Your task to perform on an android device: Open calendar and show me the fourth week of next month Image 0: 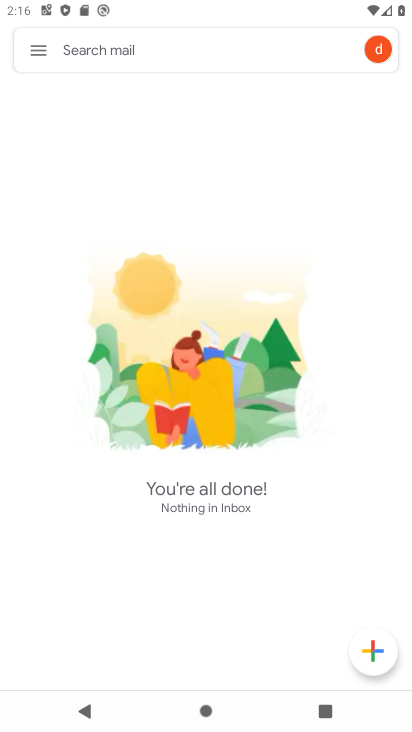
Step 0: press back button
Your task to perform on an android device: Open calendar and show me the fourth week of next month Image 1: 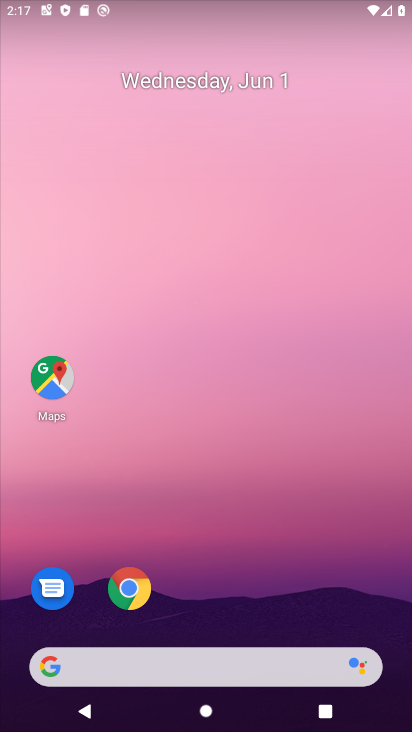
Step 1: drag from (197, 640) to (241, 99)
Your task to perform on an android device: Open calendar and show me the fourth week of next month Image 2: 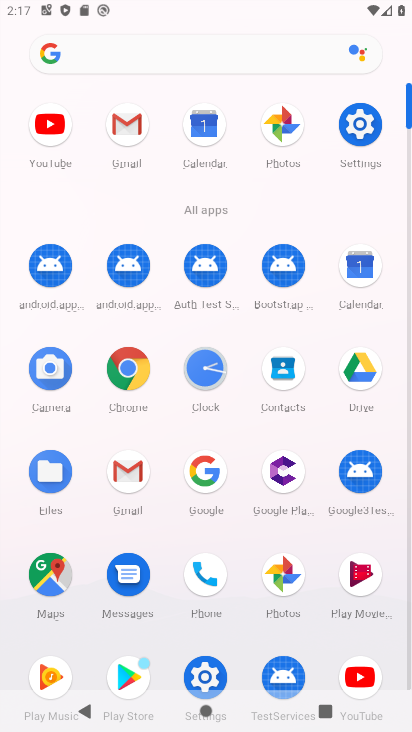
Step 2: click (345, 282)
Your task to perform on an android device: Open calendar and show me the fourth week of next month Image 3: 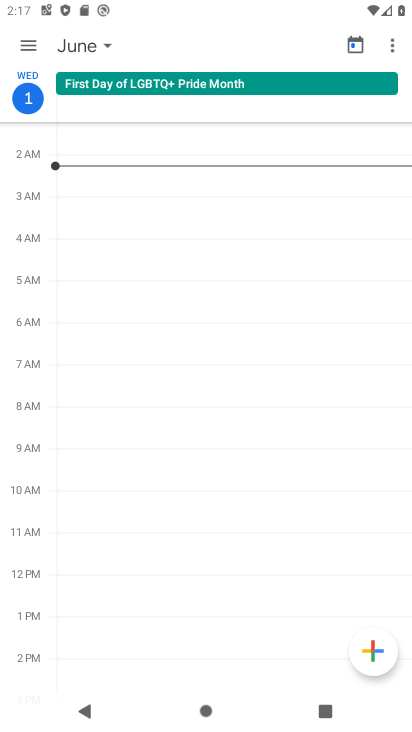
Step 3: click (27, 37)
Your task to perform on an android device: Open calendar and show me the fourth week of next month Image 4: 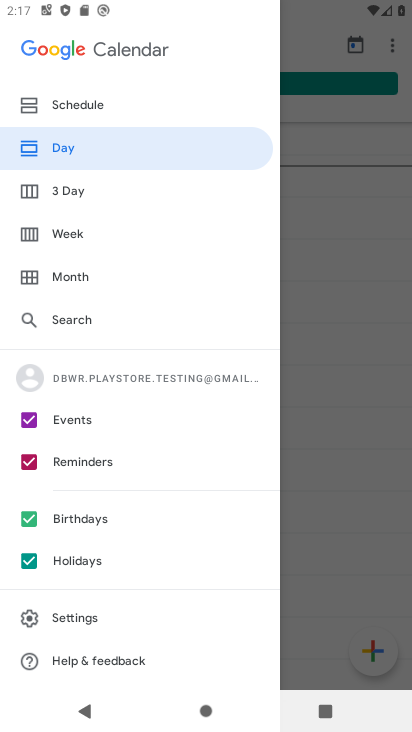
Step 4: click (87, 98)
Your task to perform on an android device: Open calendar and show me the fourth week of next month Image 5: 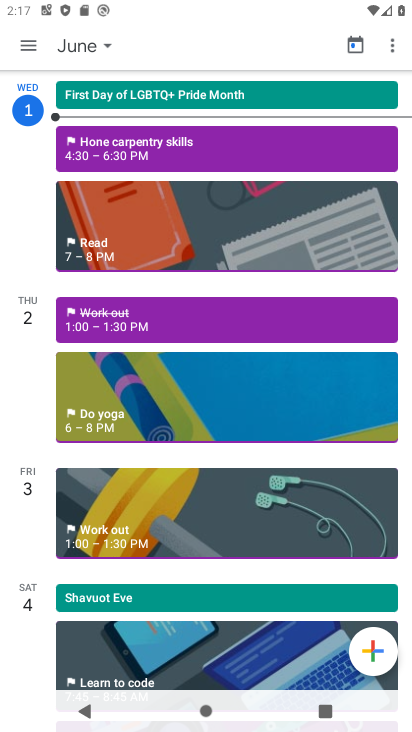
Step 5: click (97, 43)
Your task to perform on an android device: Open calendar and show me the fourth week of next month Image 6: 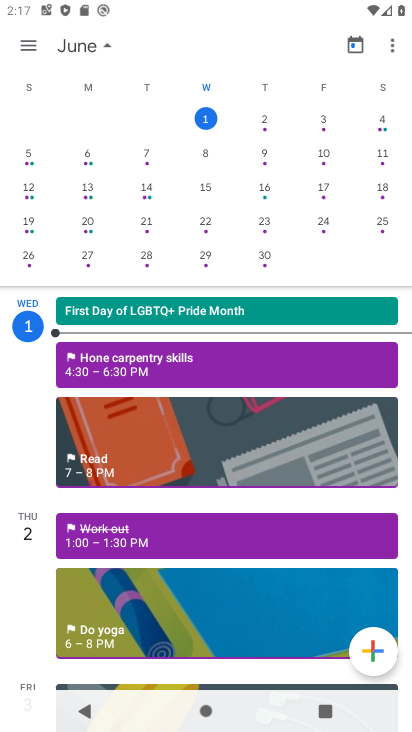
Step 6: drag from (380, 180) to (89, 153)
Your task to perform on an android device: Open calendar and show me the fourth week of next month Image 7: 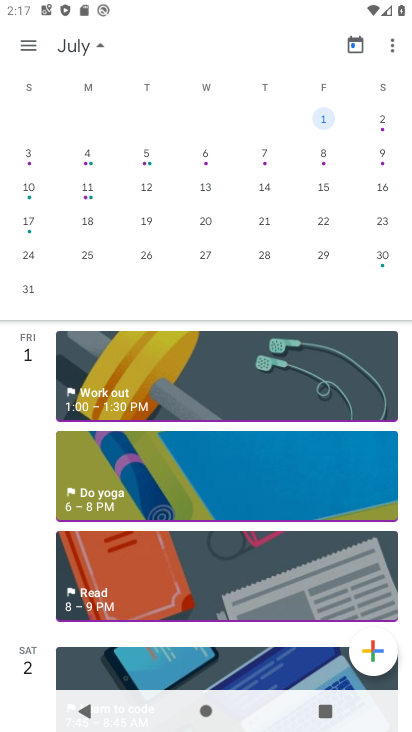
Step 7: click (87, 215)
Your task to perform on an android device: Open calendar and show me the fourth week of next month Image 8: 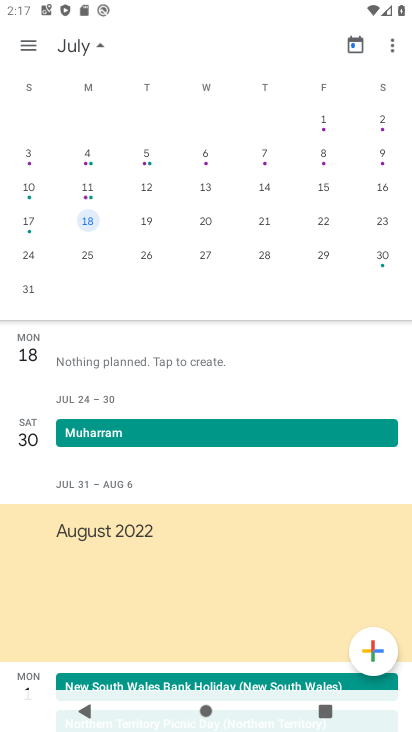
Step 8: task complete